Your task to perform on an android device: What's on my calendar today? Image 0: 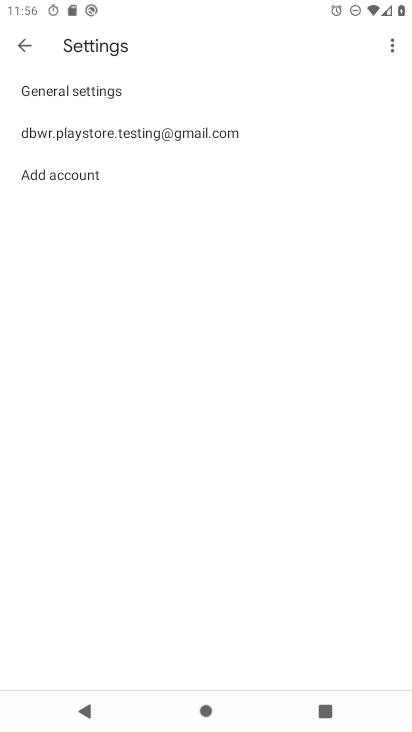
Step 0: press home button
Your task to perform on an android device: What's on my calendar today? Image 1: 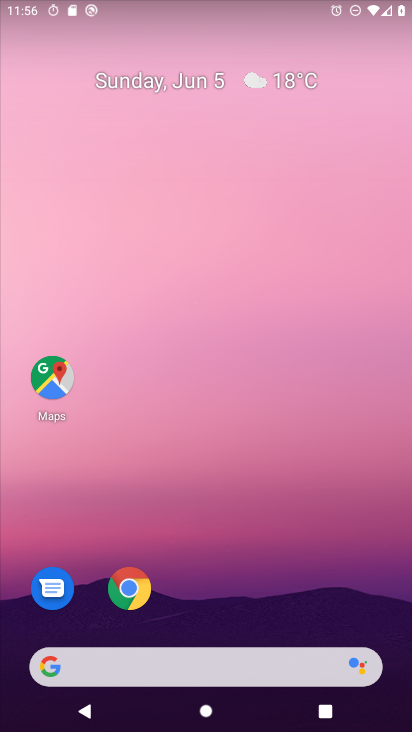
Step 1: drag from (368, 581) to (338, 226)
Your task to perform on an android device: What's on my calendar today? Image 2: 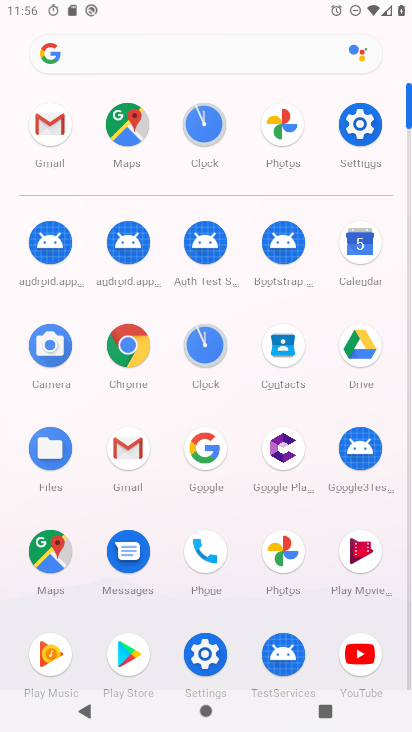
Step 2: click (364, 243)
Your task to perform on an android device: What's on my calendar today? Image 3: 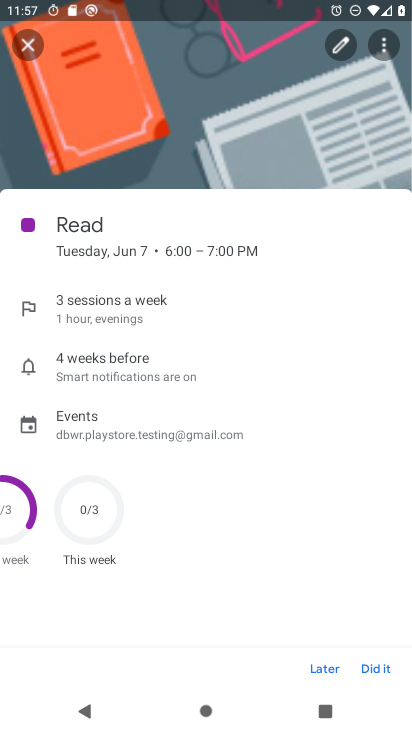
Step 3: click (25, 32)
Your task to perform on an android device: What's on my calendar today? Image 4: 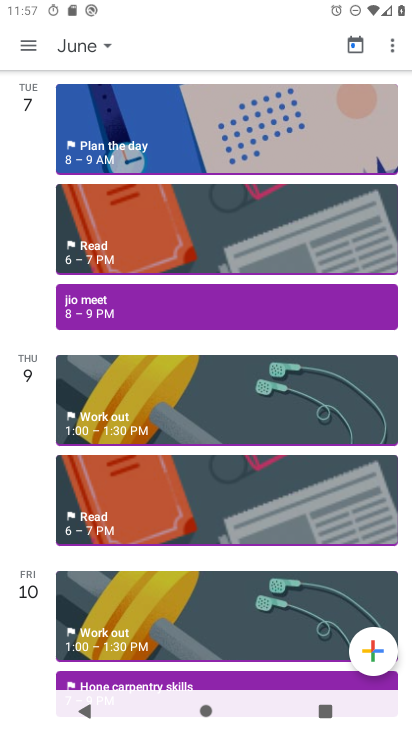
Step 4: drag from (194, 150) to (220, 323)
Your task to perform on an android device: What's on my calendar today? Image 5: 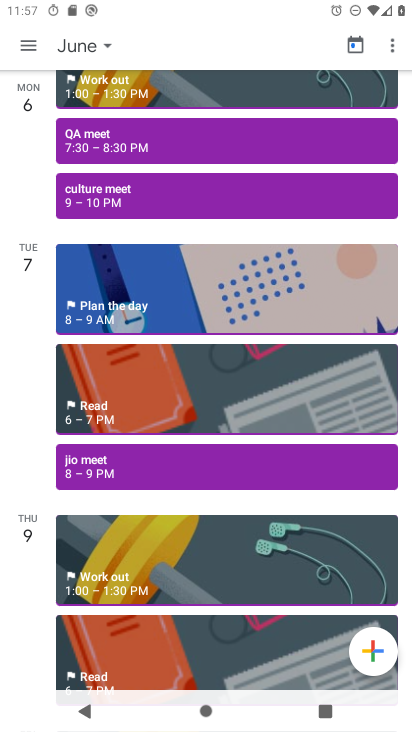
Step 5: drag from (201, 135) to (195, 388)
Your task to perform on an android device: What's on my calendar today? Image 6: 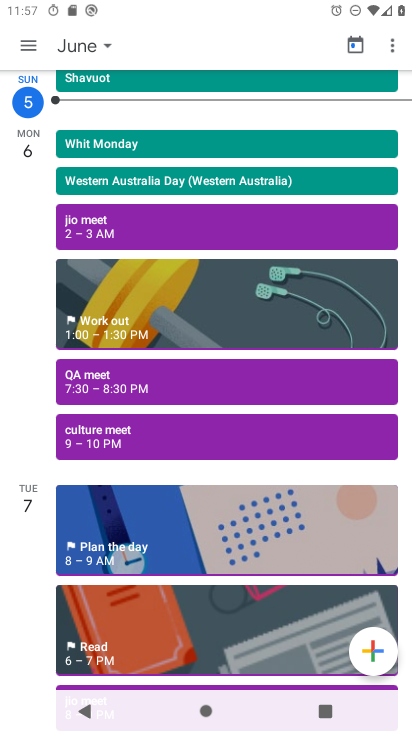
Step 6: click (150, 221)
Your task to perform on an android device: What's on my calendar today? Image 7: 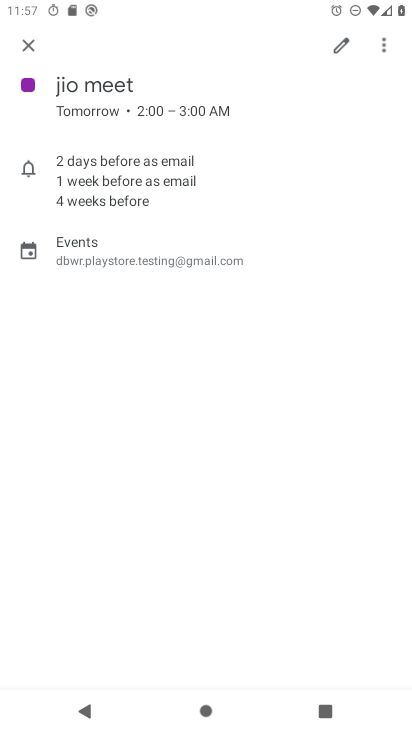
Step 7: task complete